Your task to perform on an android device: open the mobile data screen to see how much data has been used Image 0: 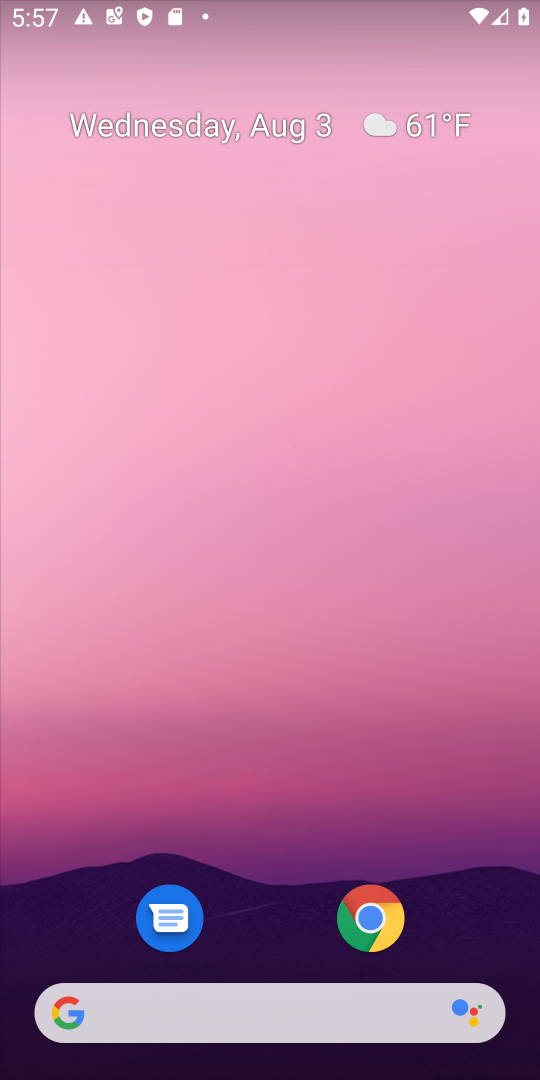
Step 0: drag from (273, 867) to (296, 16)
Your task to perform on an android device: open the mobile data screen to see how much data has been used Image 1: 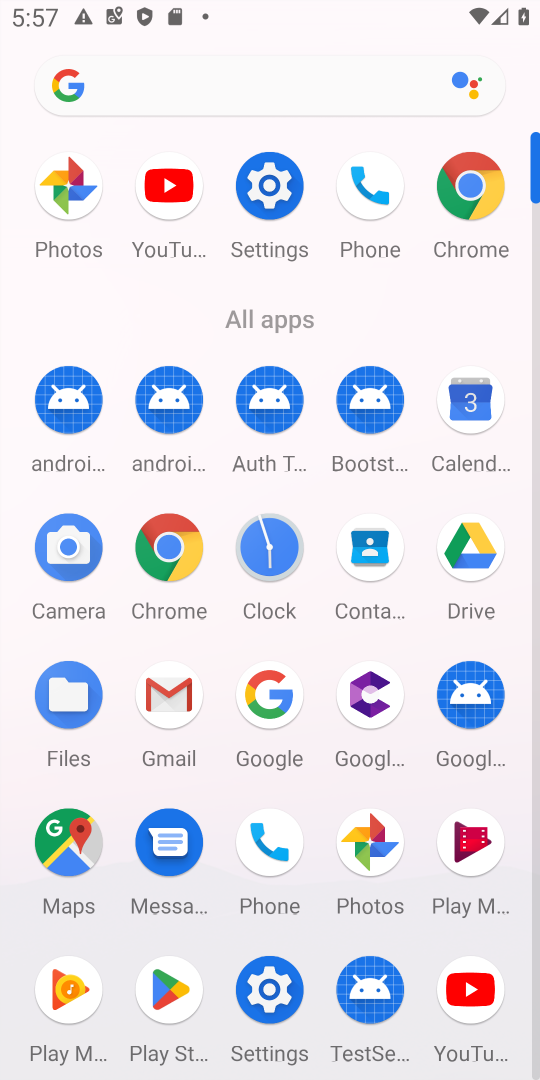
Step 1: click (278, 176)
Your task to perform on an android device: open the mobile data screen to see how much data has been used Image 2: 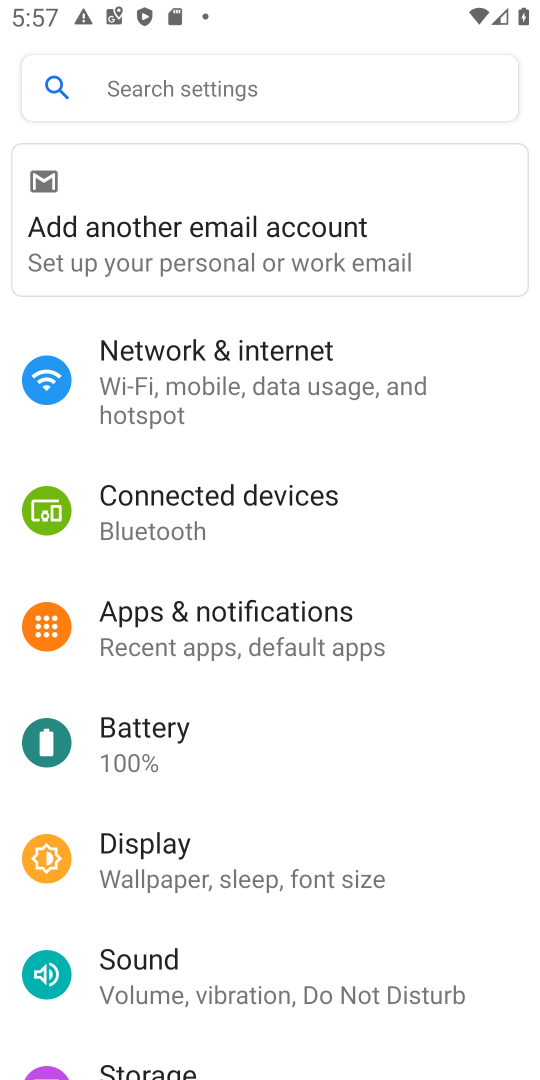
Step 2: click (207, 375)
Your task to perform on an android device: open the mobile data screen to see how much data has been used Image 3: 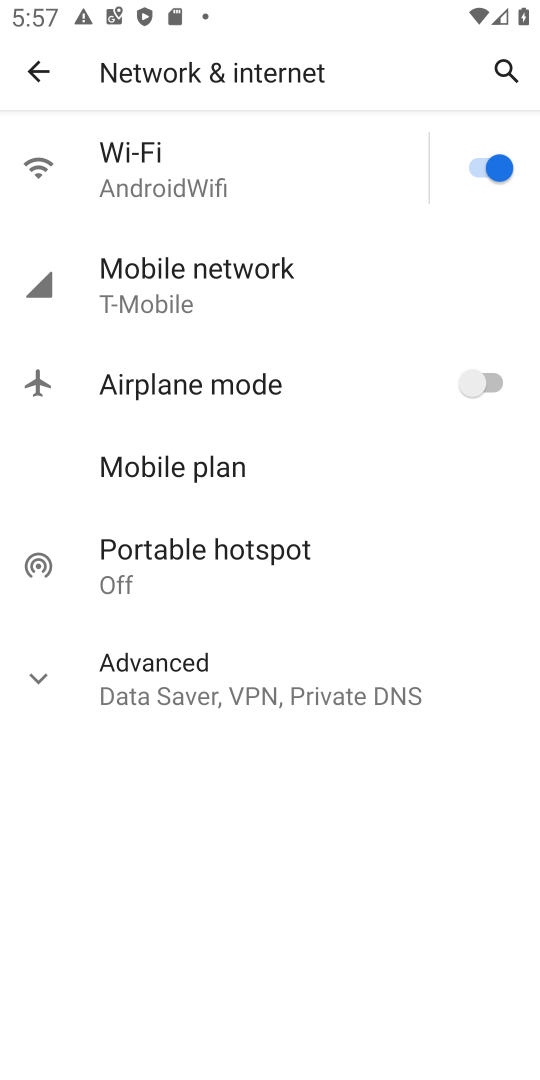
Step 3: click (200, 276)
Your task to perform on an android device: open the mobile data screen to see how much data has been used Image 4: 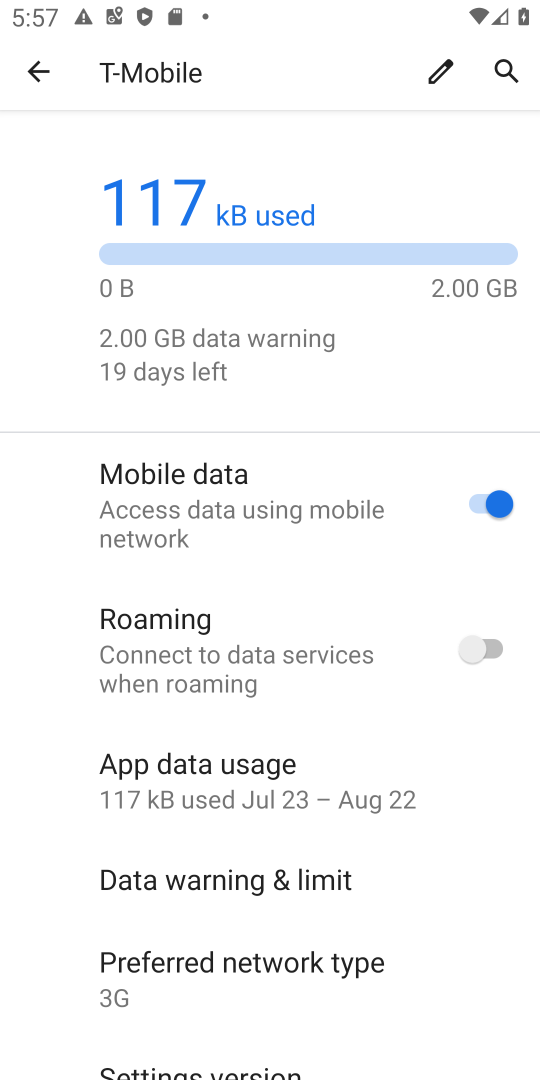
Step 4: click (216, 789)
Your task to perform on an android device: open the mobile data screen to see how much data has been used Image 5: 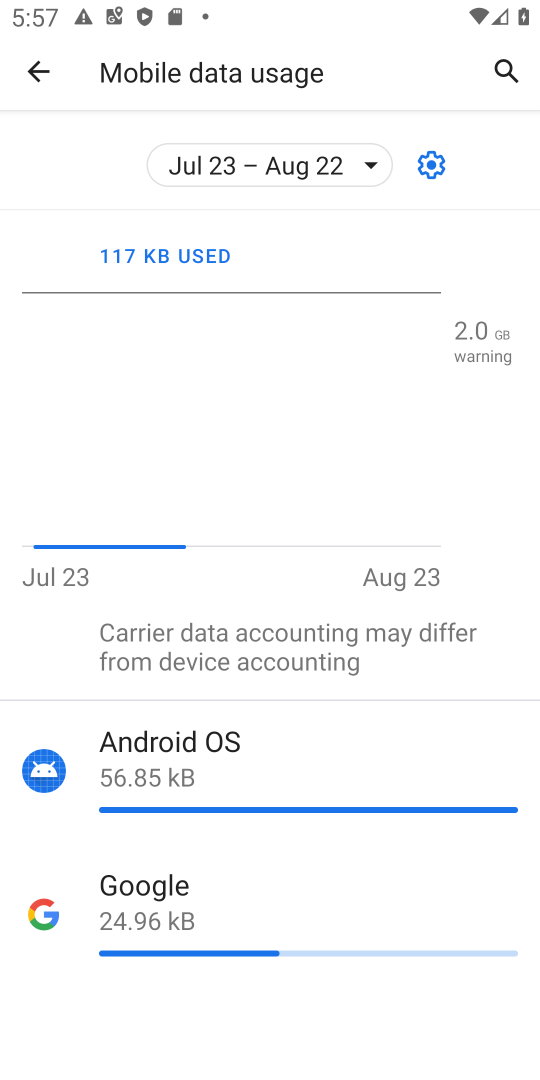
Step 5: task complete